Your task to perform on an android device: Add "beats solo 3" to the cart on bestbuy.com Image 0: 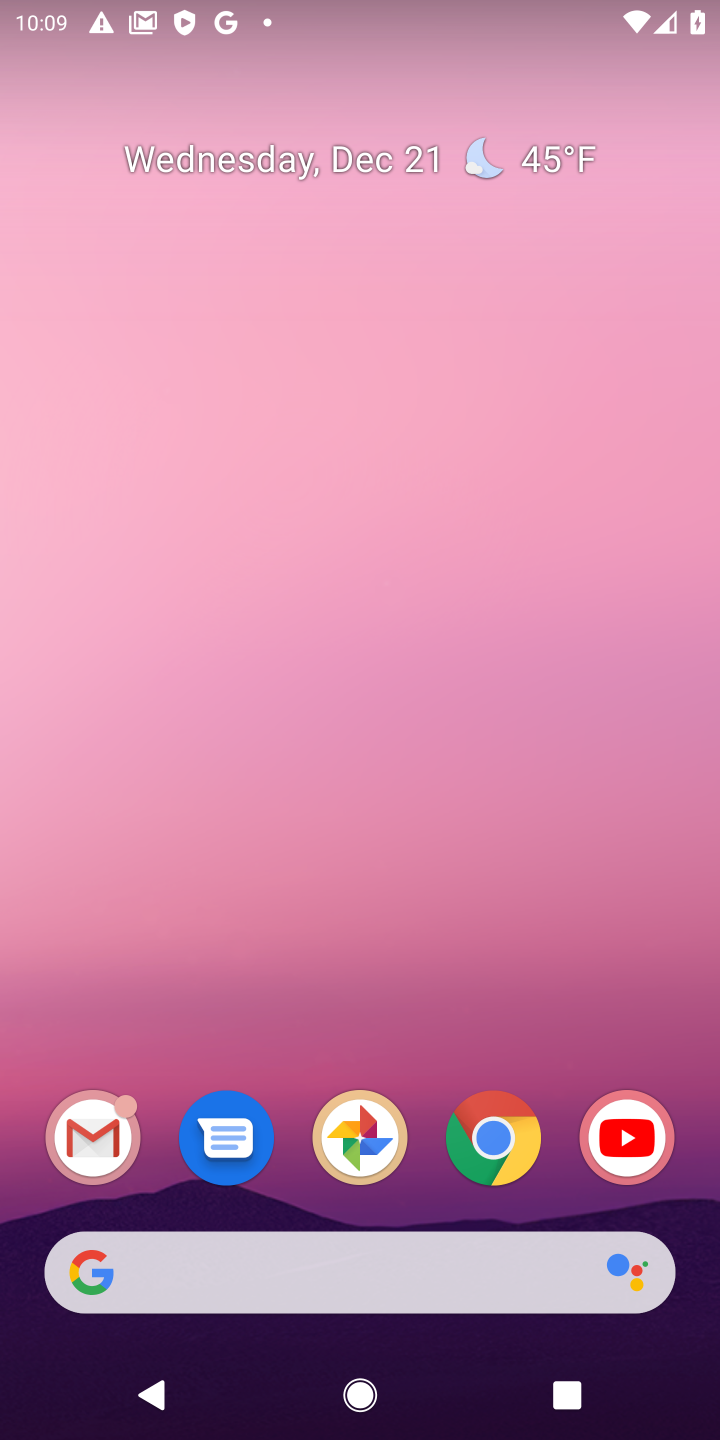
Step 0: click (499, 1134)
Your task to perform on an android device: Add "beats solo 3" to the cart on bestbuy.com Image 1: 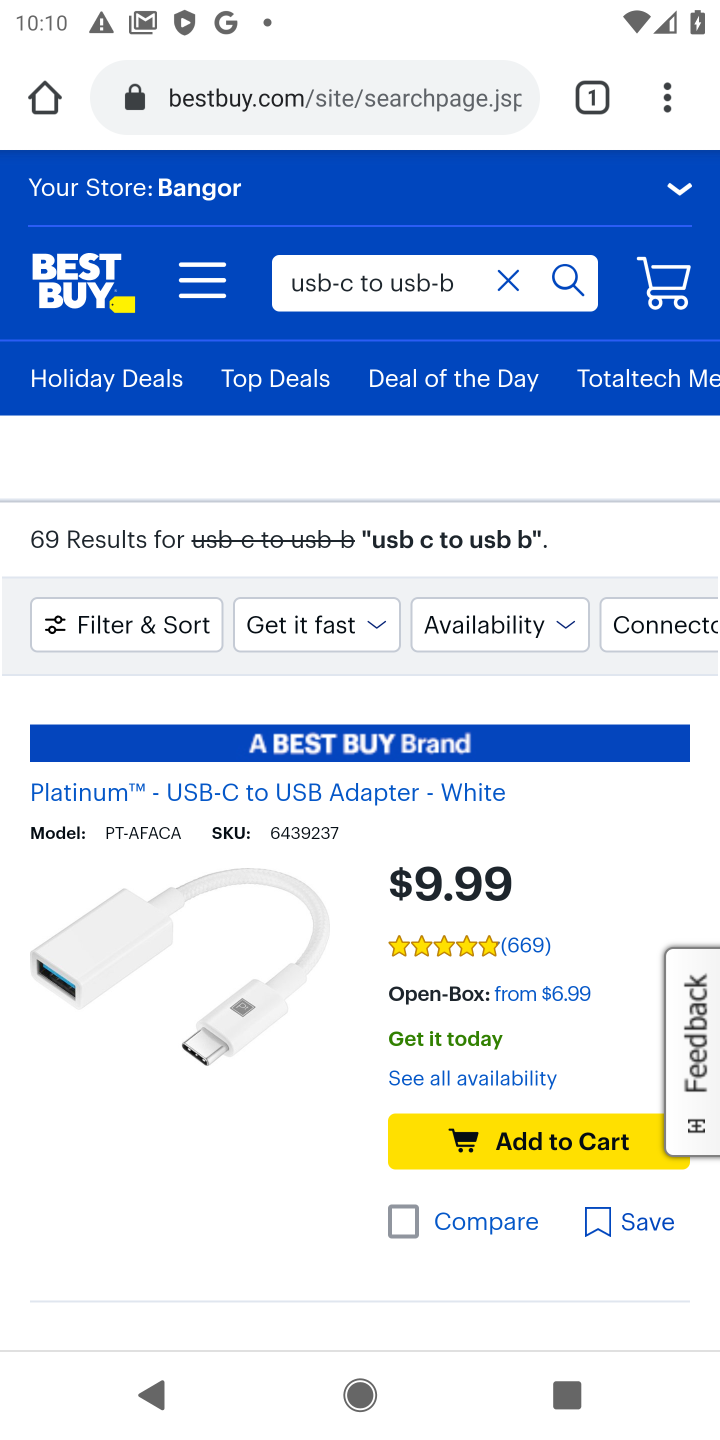
Step 1: click (502, 283)
Your task to perform on an android device: Add "beats solo 3" to the cart on bestbuy.com Image 2: 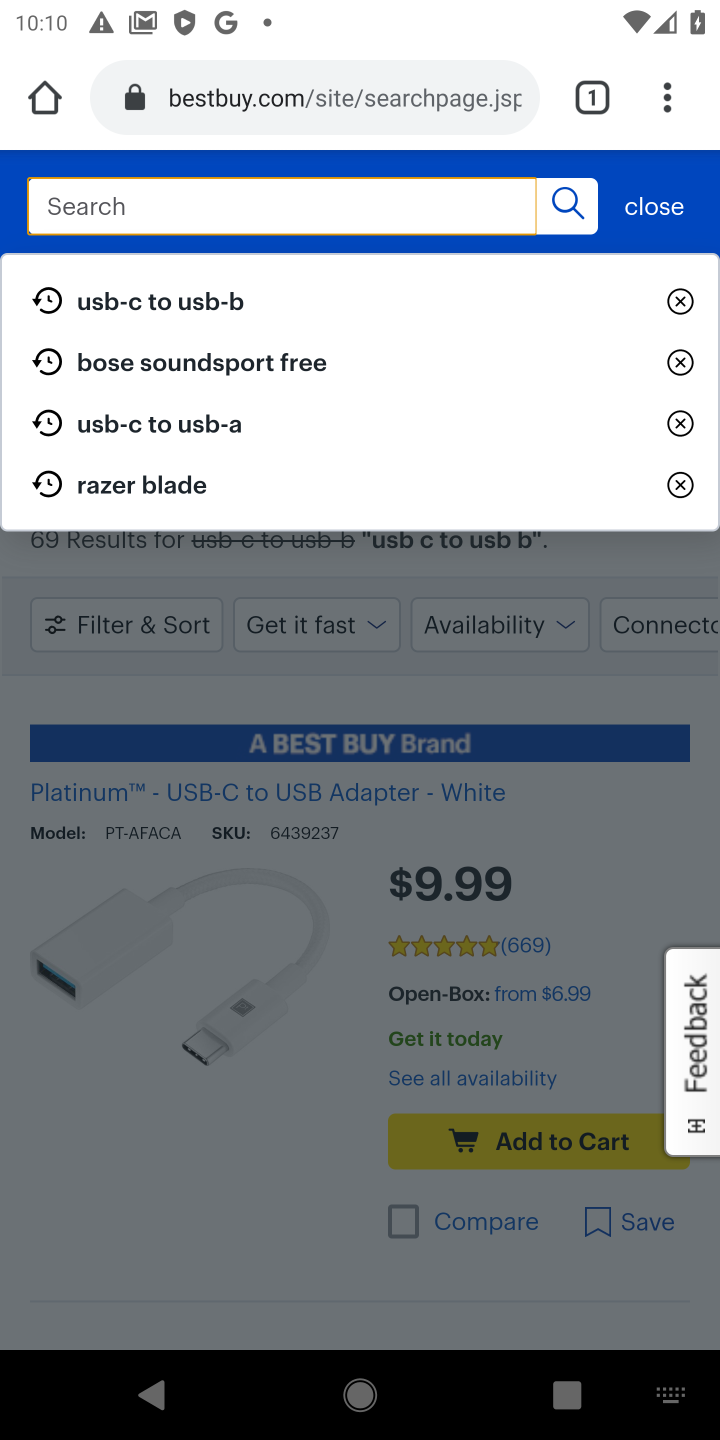
Step 2: type "beats solo 3"
Your task to perform on an android device: Add "beats solo 3" to the cart on bestbuy.com Image 3: 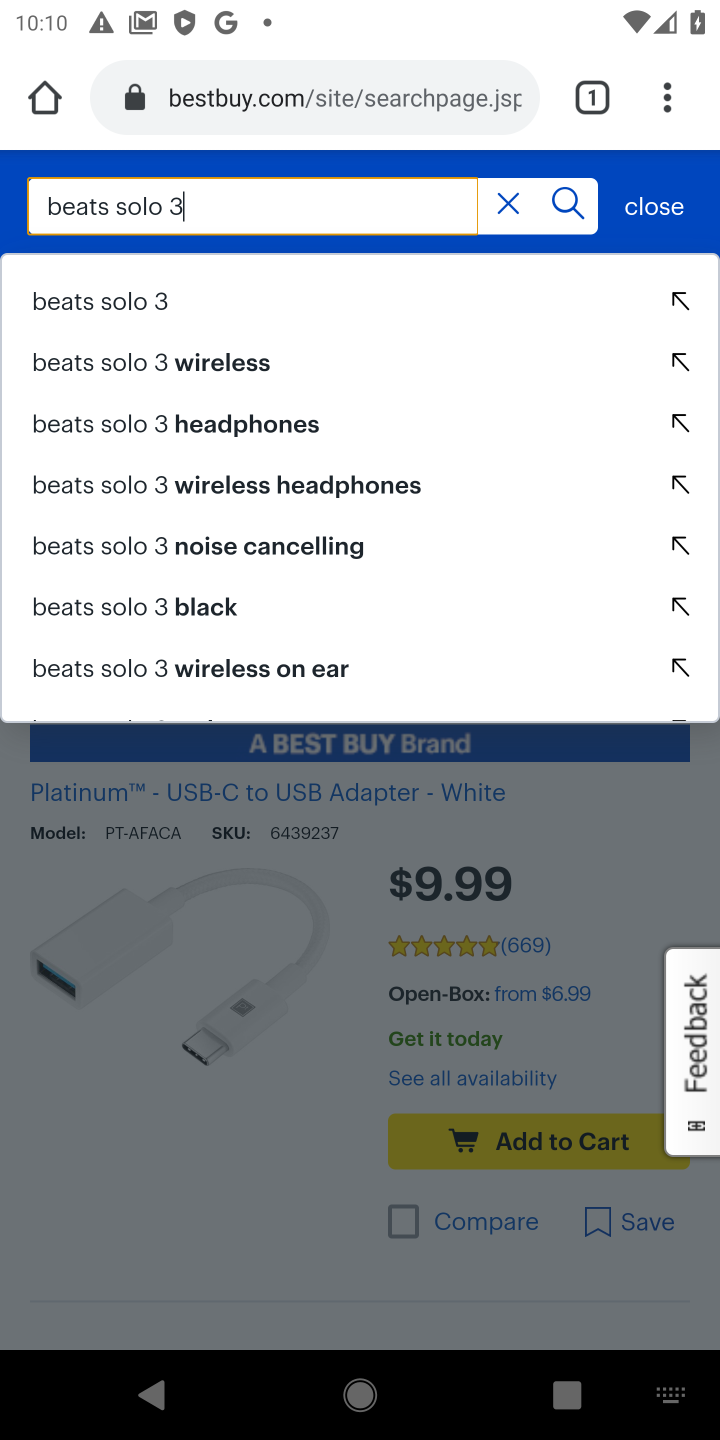
Step 3: click (90, 303)
Your task to perform on an android device: Add "beats solo 3" to the cart on bestbuy.com Image 4: 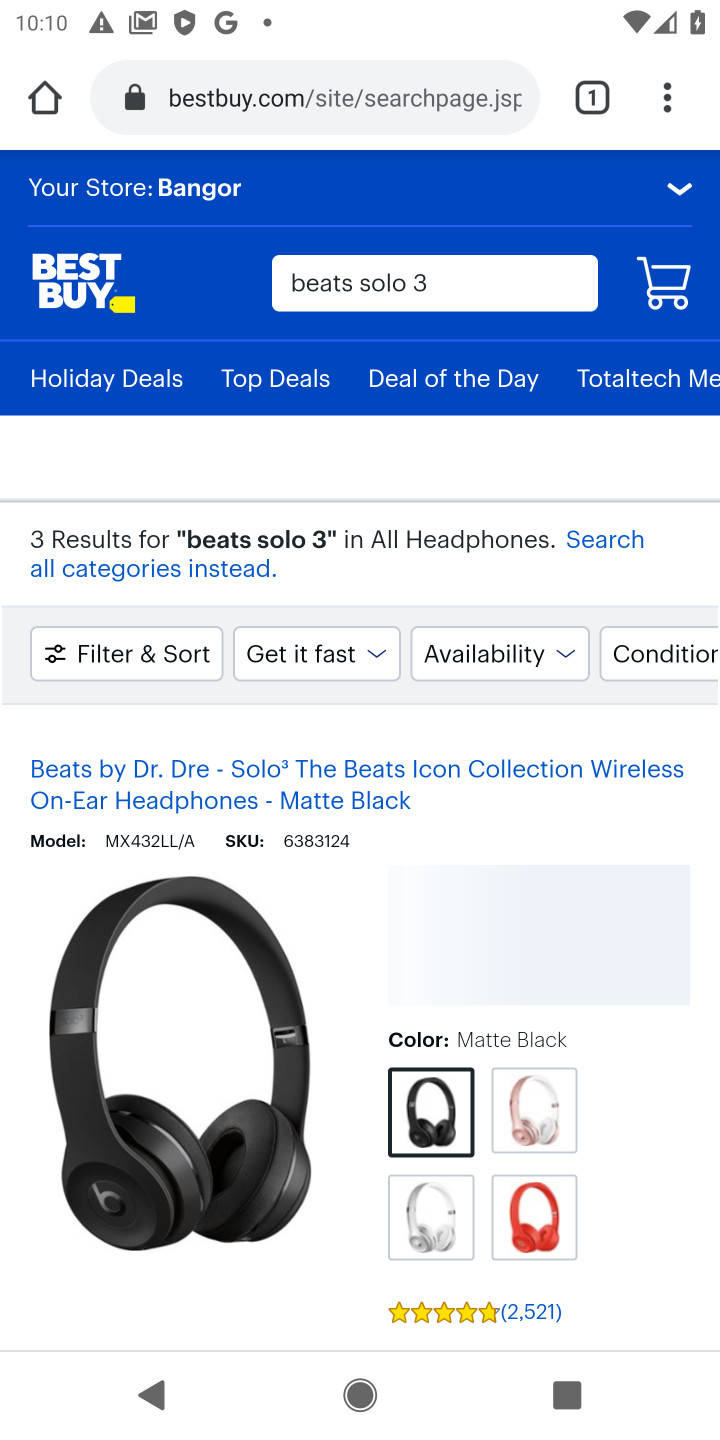
Step 4: drag from (276, 893) to (285, 623)
Your task to perform on an android device: Add "beats solo 3" to the cart on bestbuy.com Image 5: 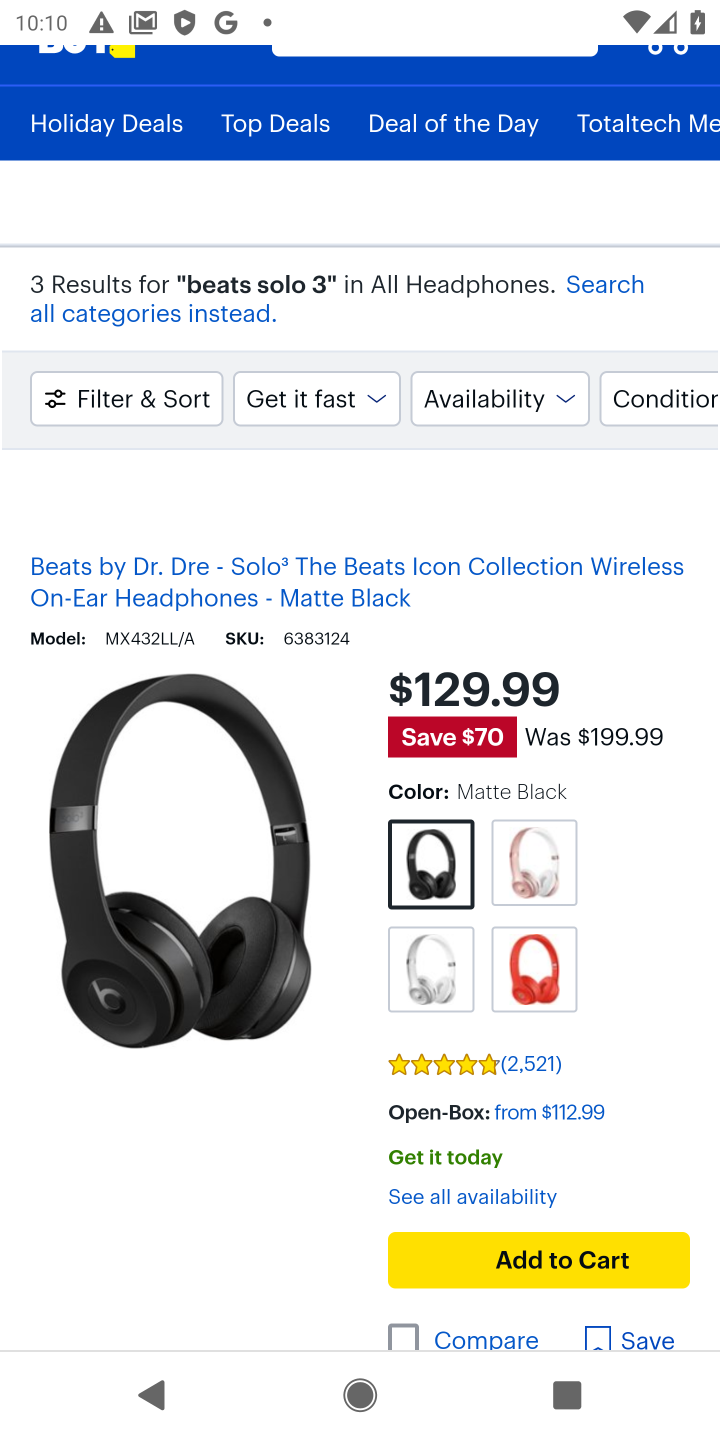
Step 5: click (507, 1251)
Your task to perform on an android device: Add "beats solo 3" to the cart on bestbuy.com Image 6: 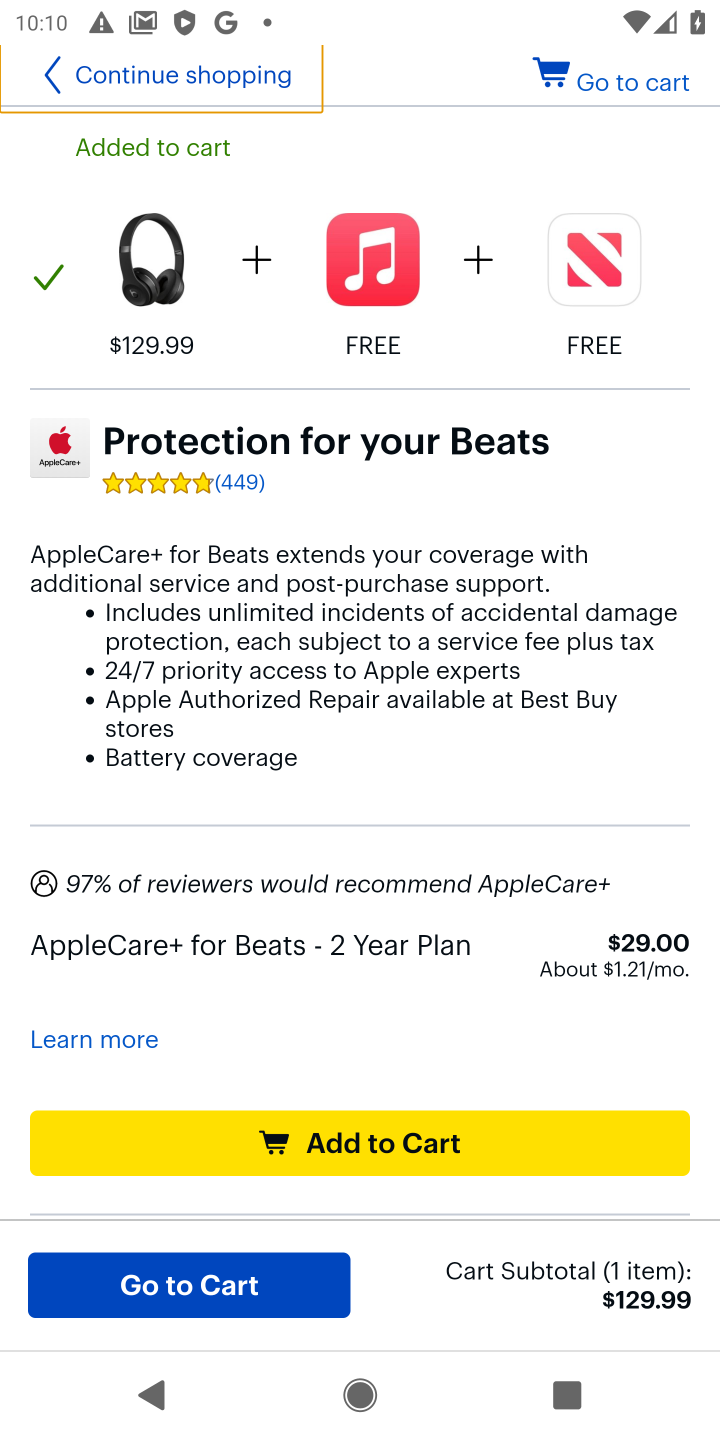
Step 6: task complete